Your task to perform on an android device: What's the weather going to be tomorrow? Image 0: 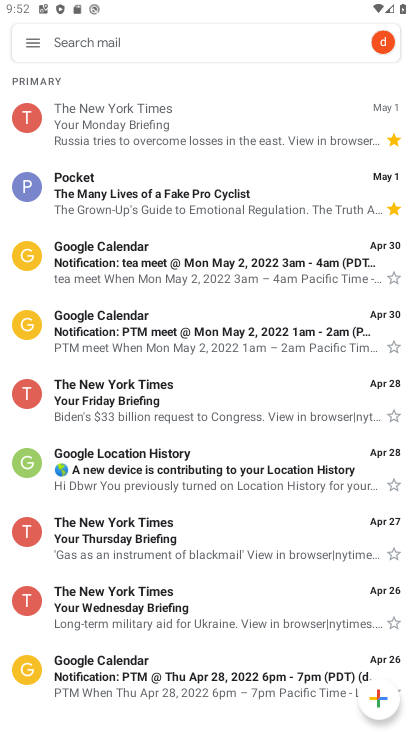
Step 0: press home button
Your task to perform on an android device: What's the weather going to be tomorrow? Image 1: 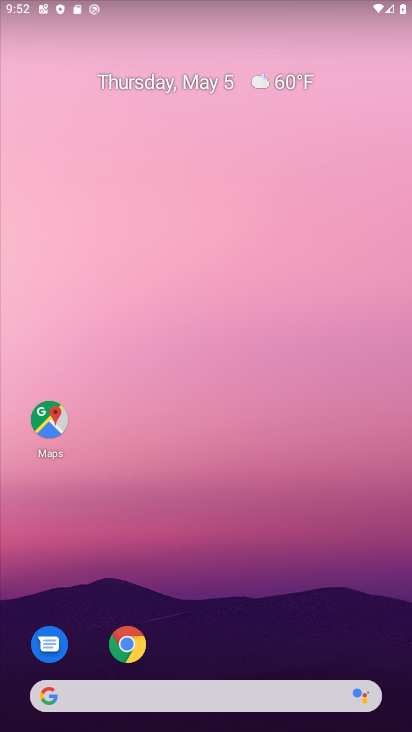
Step 1: click (130, 647)
Your task to perform on an android device: What's the weather going to be tomorrow? Image 2: 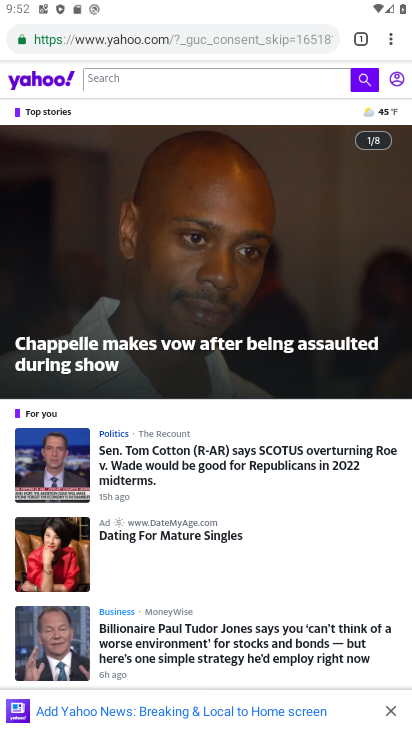
Step 2: click (129, 31)
Your task to perform on an android device: What's the weather going to be tomorrow? Image 3: 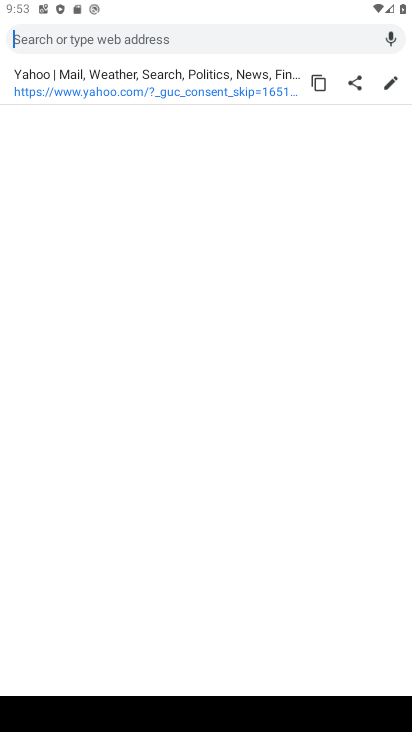
Step 3: type "whst's the weather going to be tomorrow"
Your task to perform on an android device: What's the weather going to be tomorrow? Image 4: 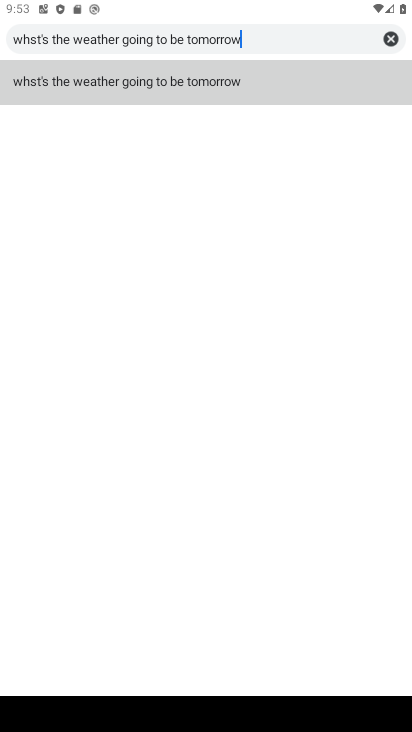
Step 4: click (163, 90)
Your task to perform on an android device: What's the weather going to be tomorrow? Image 5: 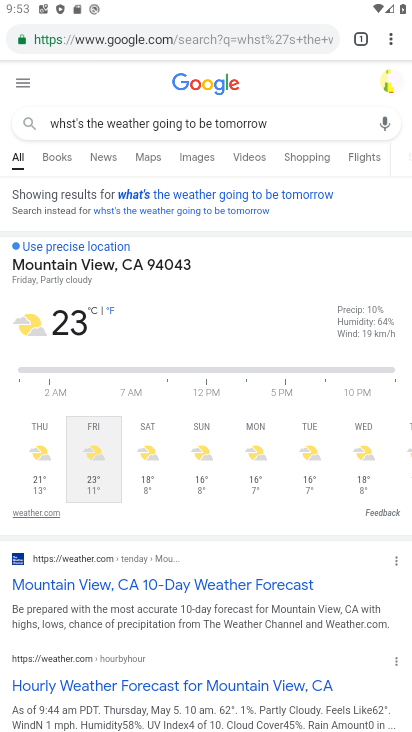
Step 5: click (166, 198)
Your task to perform on an android device: What's the weather going to be tomorrow? Image 6: 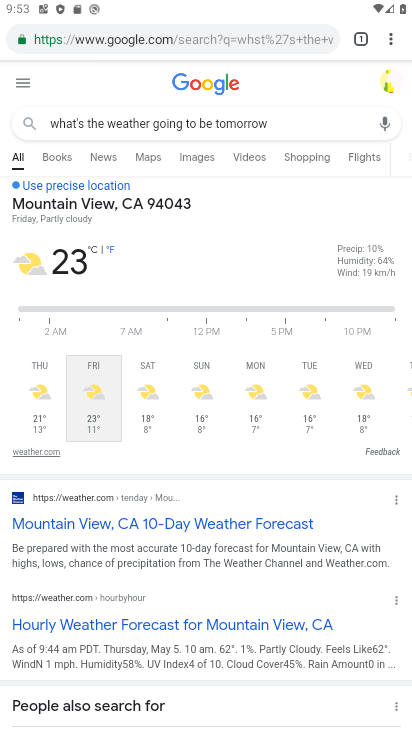
Step 6: task complete